Your task to perform on an android device: Open notification settings Image 0: 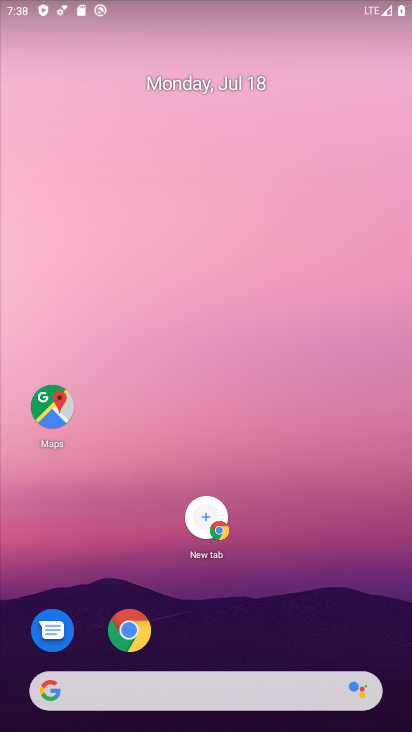
Step 0: drag from (171, 640) to (193, 225)
Your task to perform on an android device: Open notification settings Image 1: 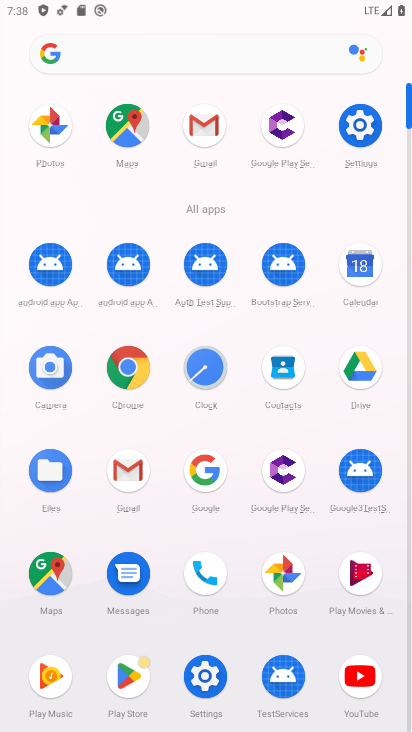
Step 1: click (376, 113)
Your task to perform on an android device: Open notification settings Image 2: 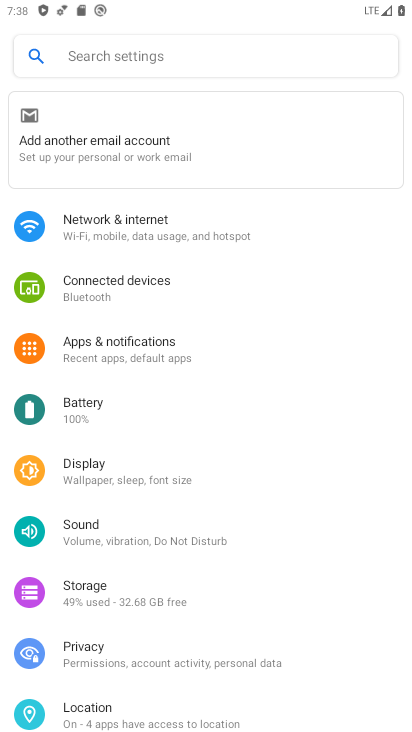
Step 2: click (92, 350)
Your task to perform on an android device: Open notification settings Image 3: 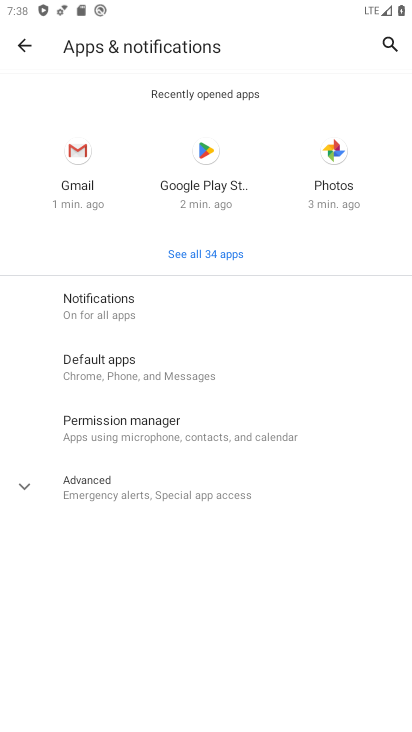
Step 3: click (11, 485)
Your task to perform on an android device: Open notification settings Image 4: 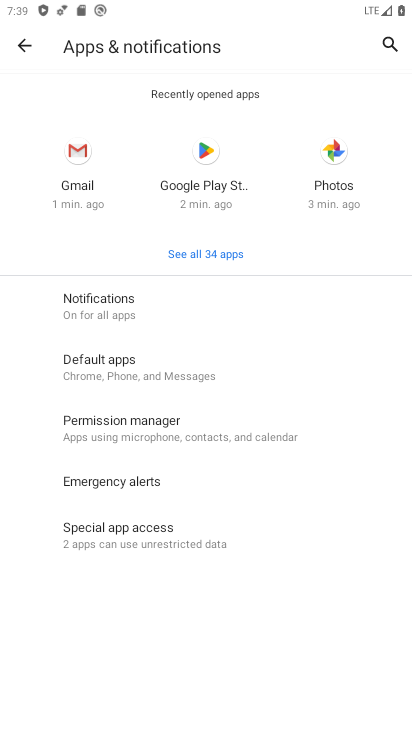
Step 4: click (115, 303)
Your task to perform on an android device: Open notification settings Image 5: 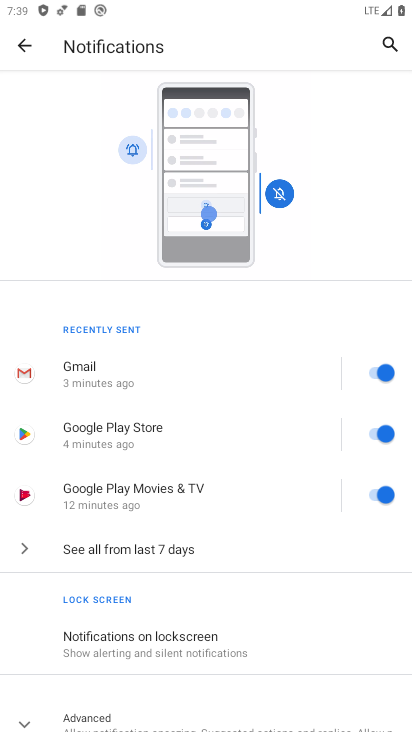
Step 5: drag from (134, 690) to (166, 239)
Your task to perform on an android device: Open notification settings Image 6: 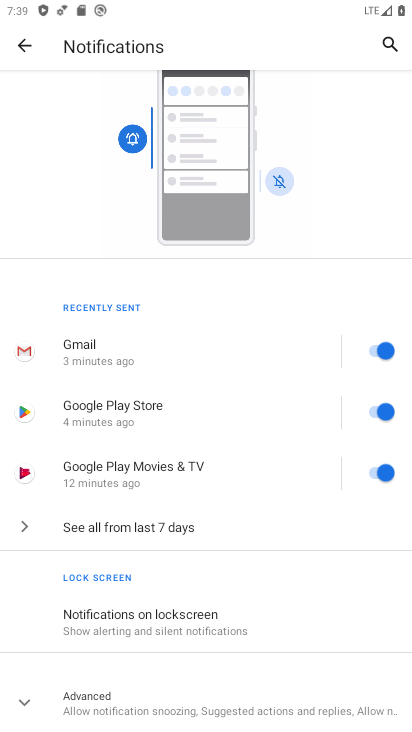
Step 6: click (84, 688)
Your task to perform on an android device: Open notification settings Image 7: 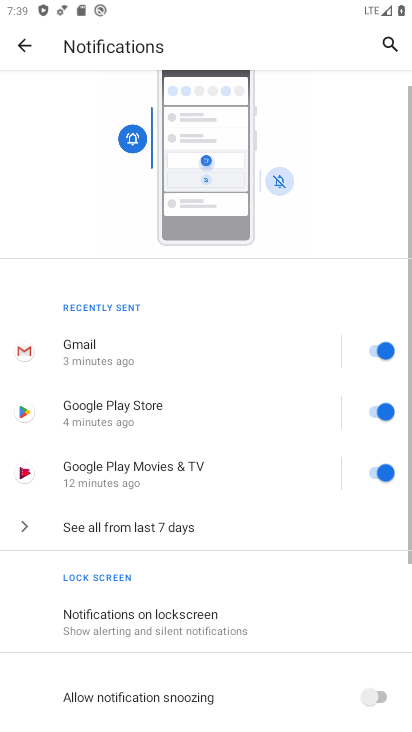
Step 7: task complete